Your task to perform on an android device: Open Google Chrome and open the bookmarks view Image 0: 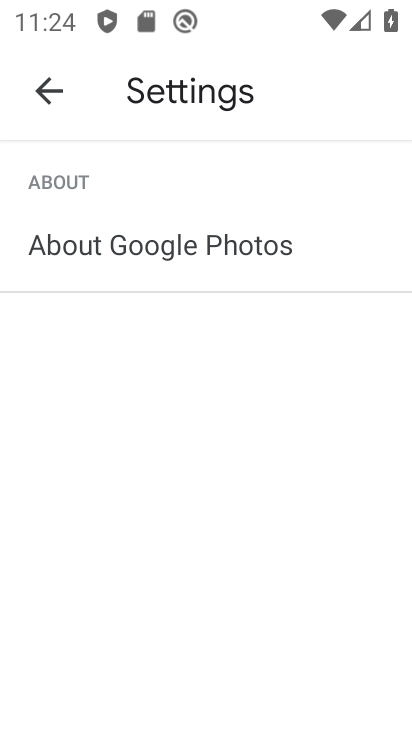
Step 0: press home button
Your task to perform on an android device: Open Google Chrome and open the bookmarks view Image 1: 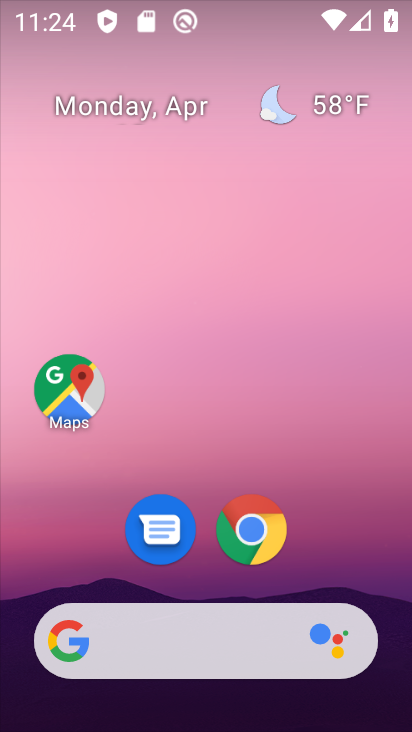
Step 1: drag from (345, 558) to (253, 61)
Your task to perform on an android device: Open Google Chrome and open the bookmarks view Image 2: 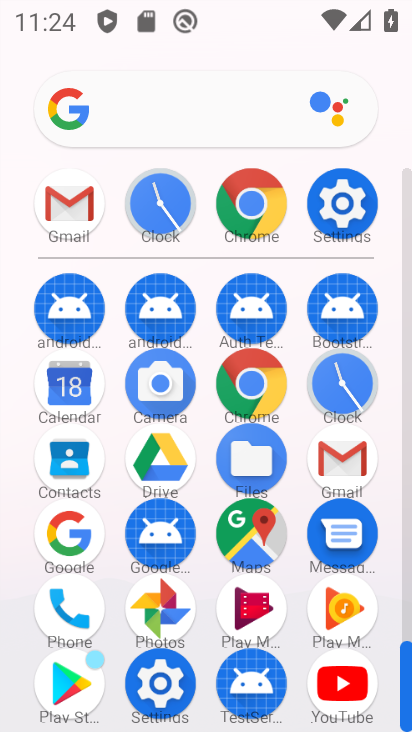
Step 2: click (236, 211)
Your task to perform on an android device: Open Google Chrome and open the bookmarks view Image 3: 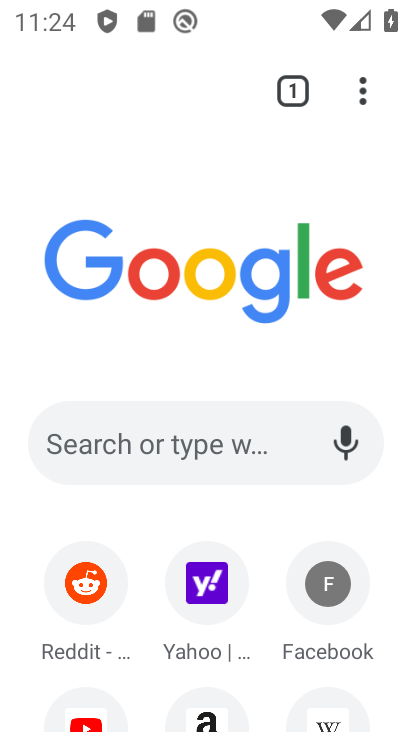
Step 3: click (360, 76)
Your task to perform on an android device: Open Google Chrome and open the bookmarks view Image 4: 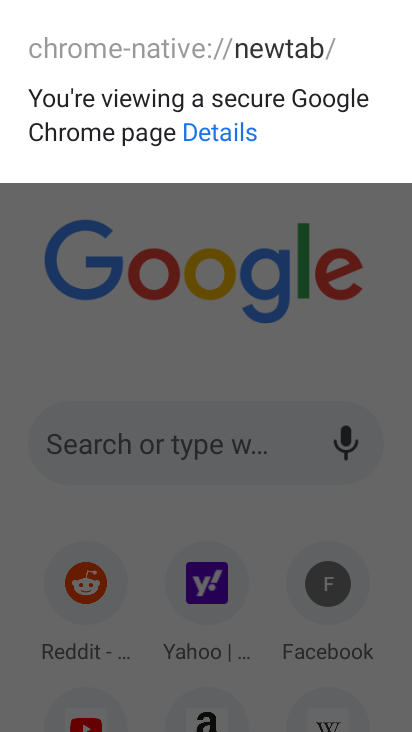
Step 4: click (209, 375)
Your task to perform on an android device: Open Google Chrome and open the bookmarks view Image 5: 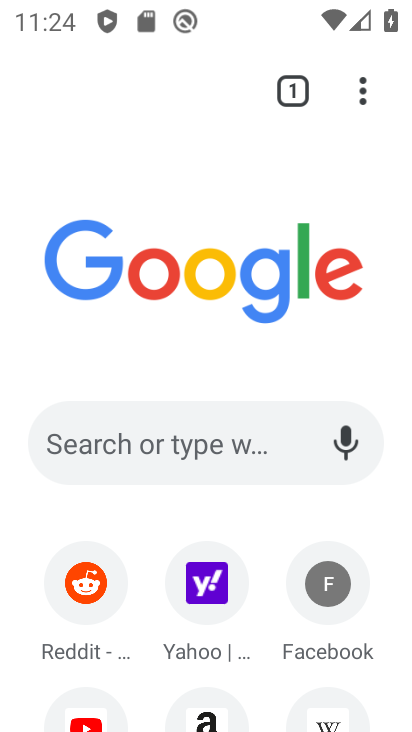
Step 5: click (355, 81)
Your task to perform on an android device: Open Google Chrome and open the bookmarks view Image 6: 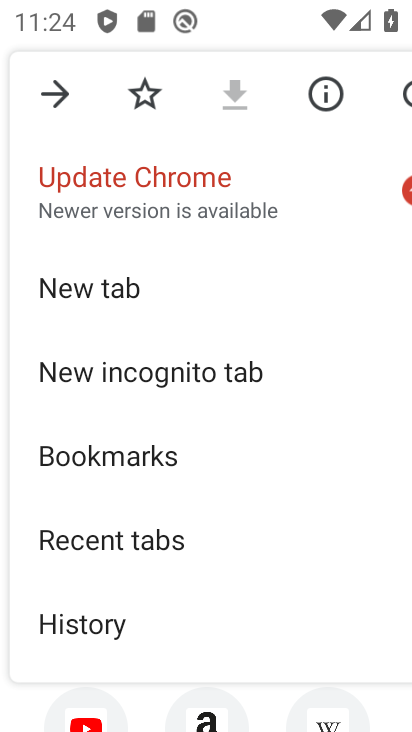
Step 6: click (166, 453)
Your task to perform on an android device: Open Google Chrome and open the bookmarks view Image 7: 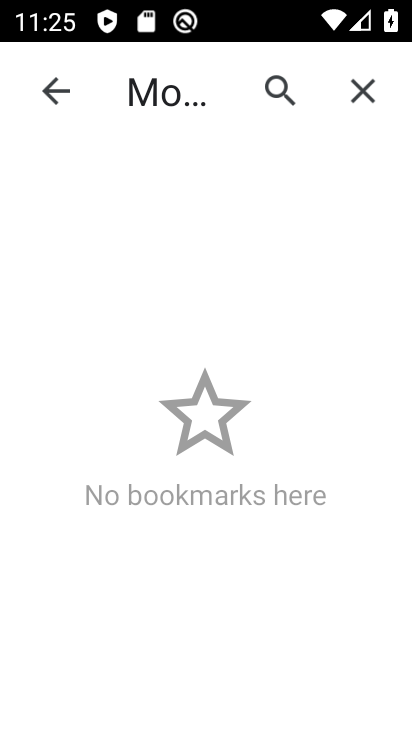
Step 7: task complete